Your task to perform on an android device: Check the weather Image 0: 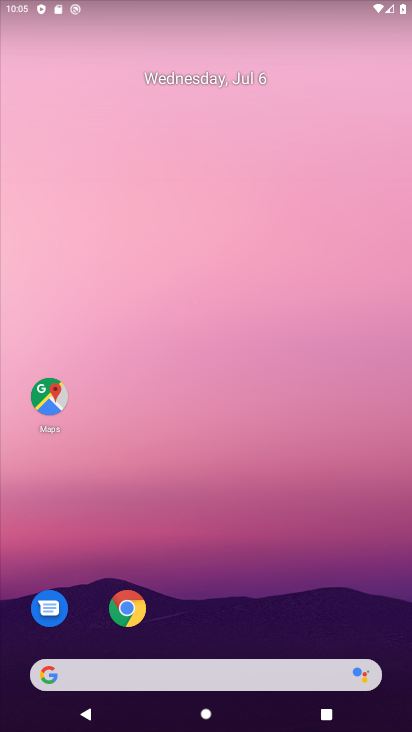
Step 0: drag from (233, 636) to (142, 7)
Your task to perform on an android device: Check the weather Image 1: 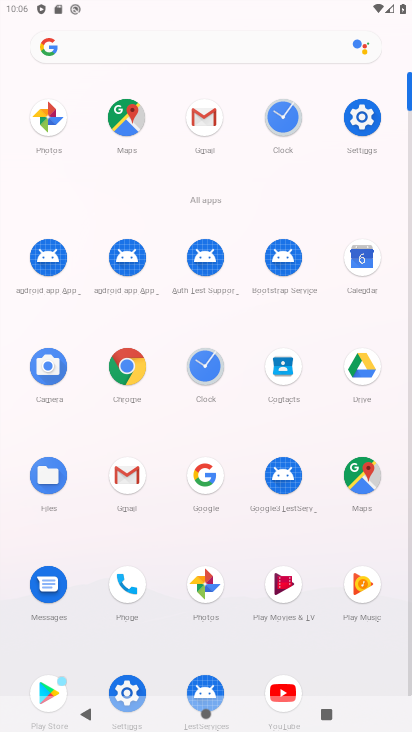
Step 1: click (205, 494)
Your task to perform on an android device: Check the weather Image 2: 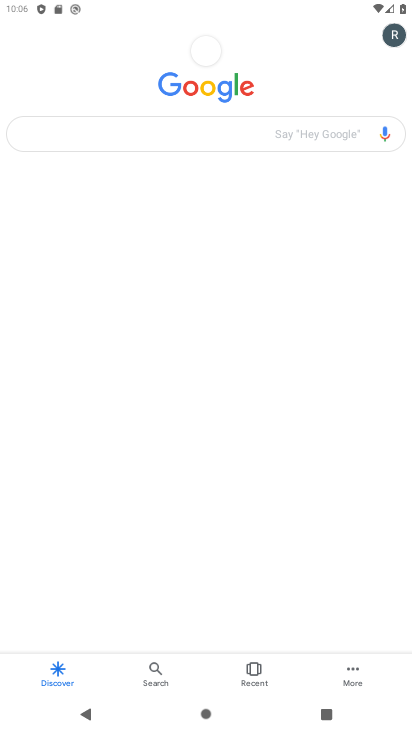
Step 2: click (205, 139)
Your task to perform on an android device: Check the weather Image 3: 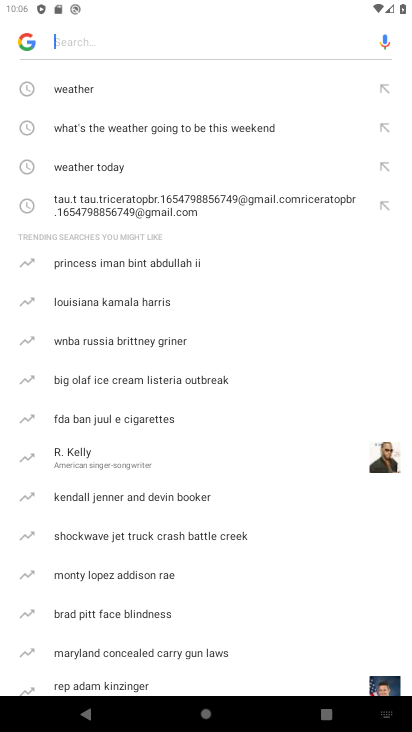
Step 3: click (64, 91)
Your task to perform on an android device: Check the weather Image 4: 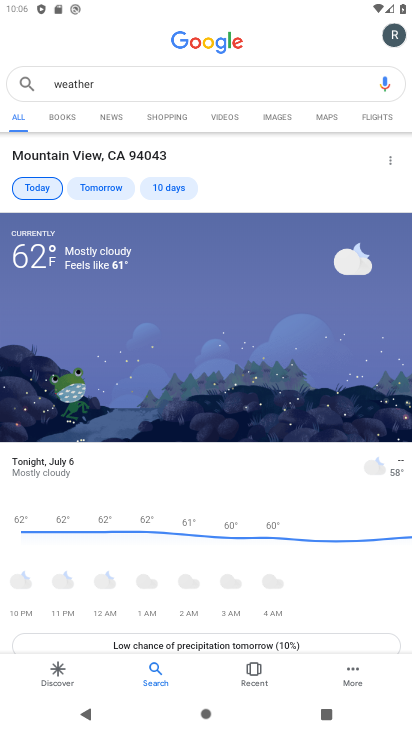
Step 4: task complete